Your task to perform on an android device: Go to settings Image 0: 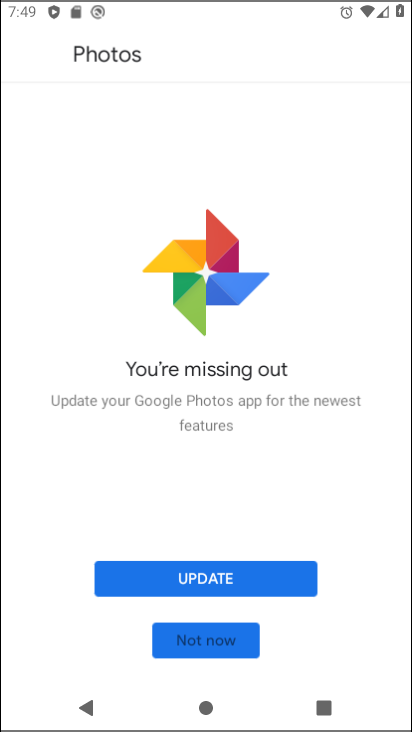
Step 0: press home button
Your task to perform on an android device: Go to settings Image 1: 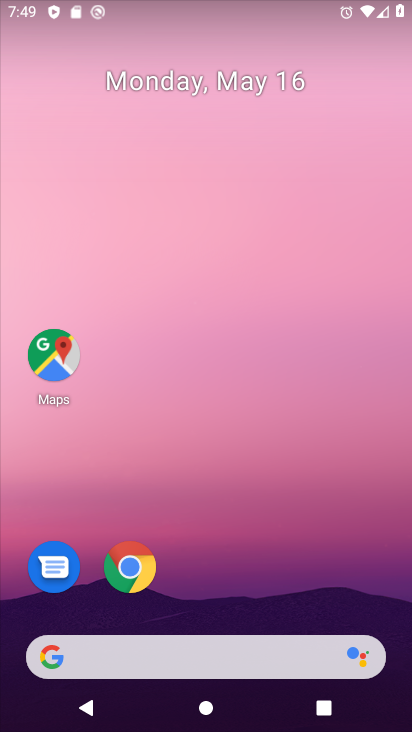
Step 1: drag from (249, 508) to (303, 130)
Your task to perform on an android device: Go to settings Image 2: 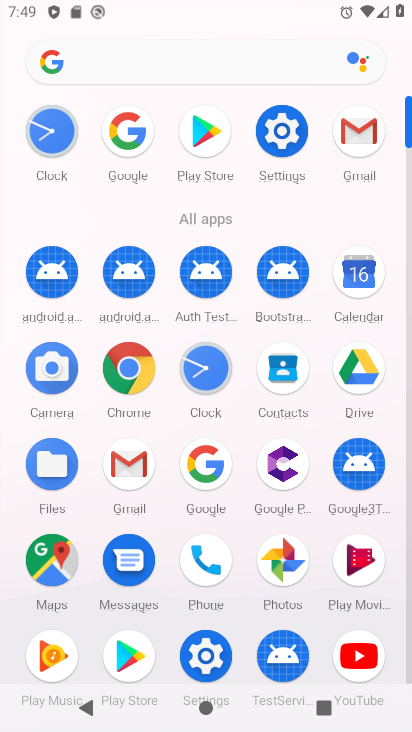
Step 2: click (271, 136)
Your task to perform on an android device: Go to settings Image 3: 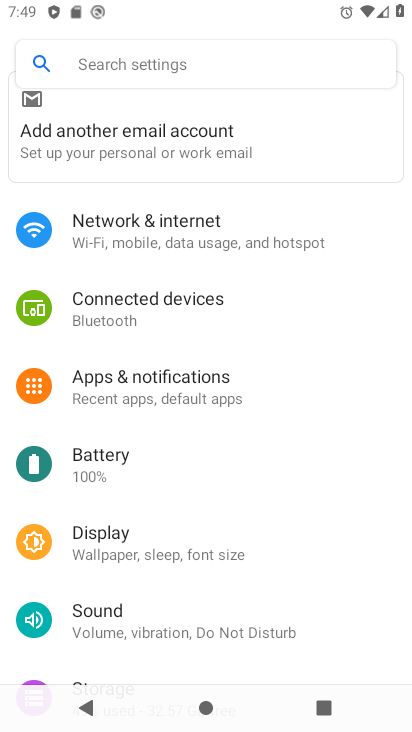
Step 3: task complete